Your task to perform on an android device: open chrome privacy settings Image 0: 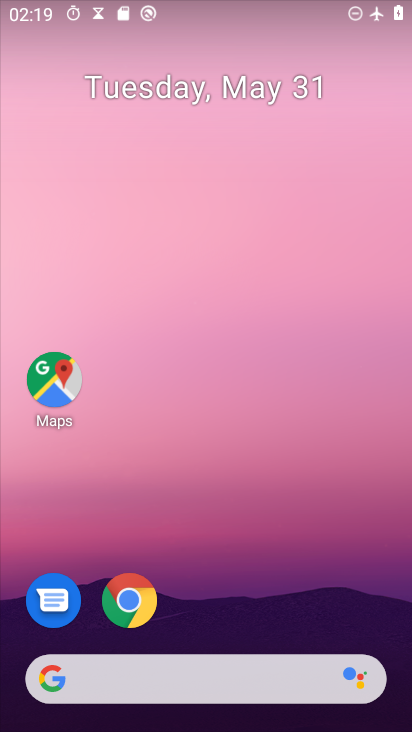
Step 0: click (133, 596)
Your task to perform on an android device: open chrome privacy settings Image 1: 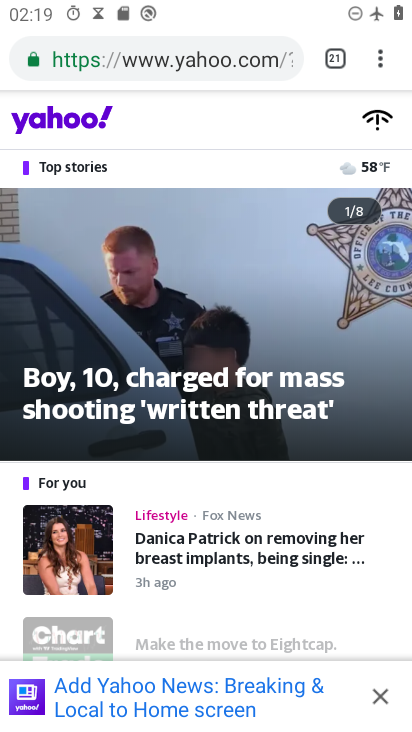
Step 1: click (382, 64)
Your task to perform on an android device: open chrome privacy settings Image 2: 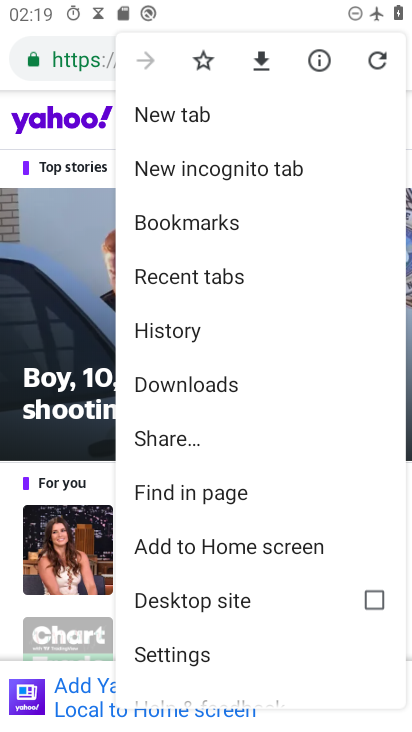
Step 2: click (187, 652)
Your task to perform on an android device: open chrome privacy settings Image 3: 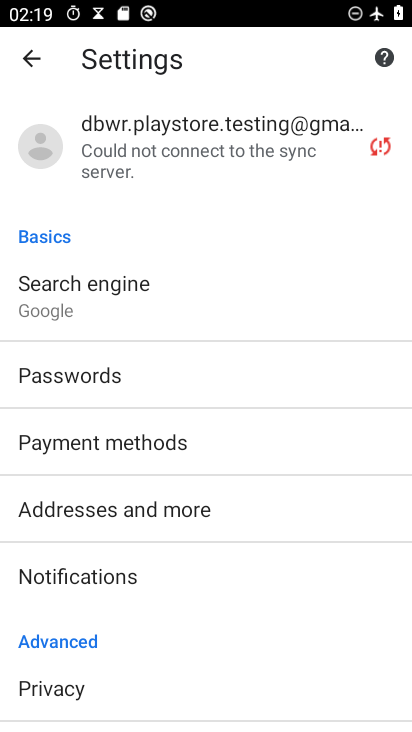
Step 3: click (53, 684)
Your task to perform on an android device: open chrome privacy settings Image 4: 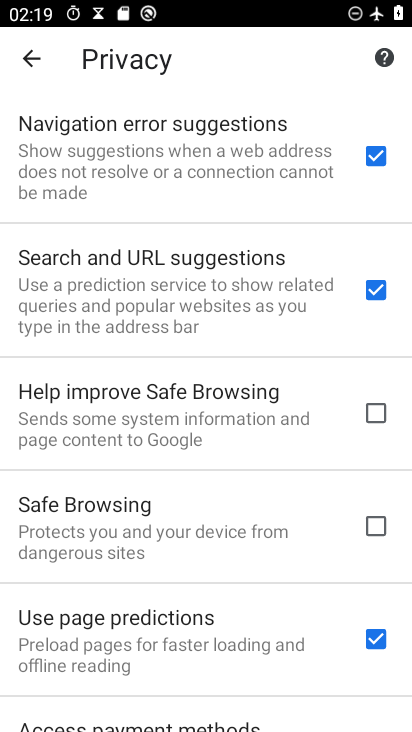
Step 4: task complete